Your task to perform on an android device: open the mobile data screen to see how much data has been used Image 0: 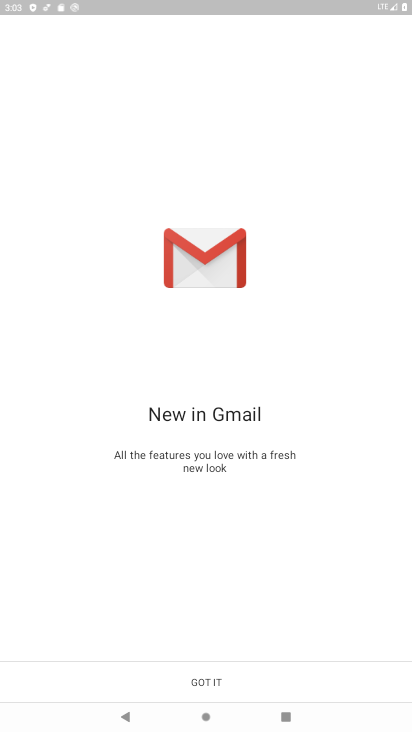
Step 0: press home button
Your task to perform on an android device: open the mobile data screen to see how much data has been used Image 1: 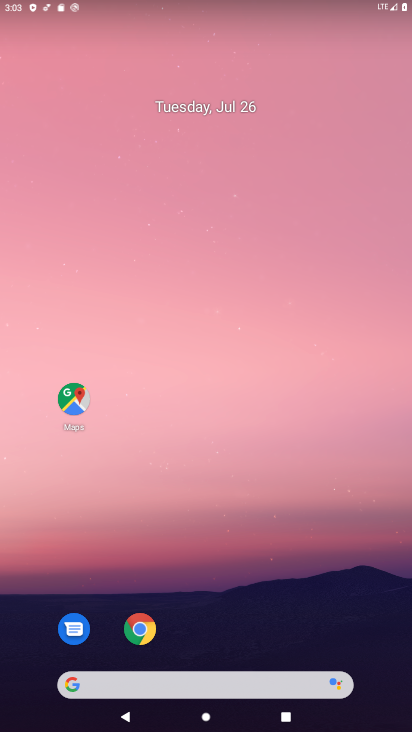
Step 1: drag from (224, 696) to (263, 147)
Your task to perform on an android device: open the mobile data screen to see how much data has been used Image 2: 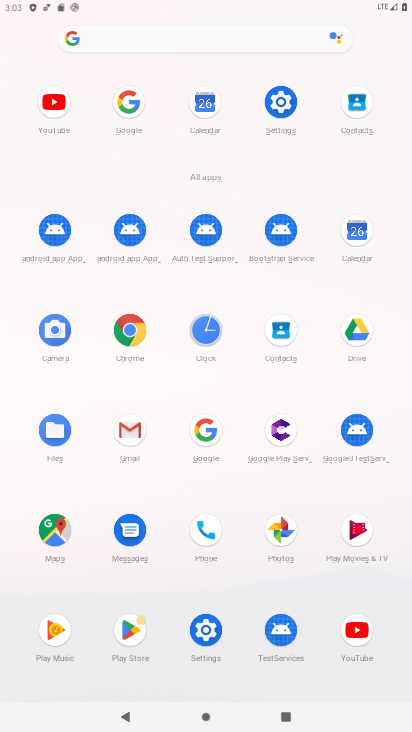
Step 2: click (283, 99)
Your task to perform on an android device: open the mobile data screen to see how much data has been used Image 3: 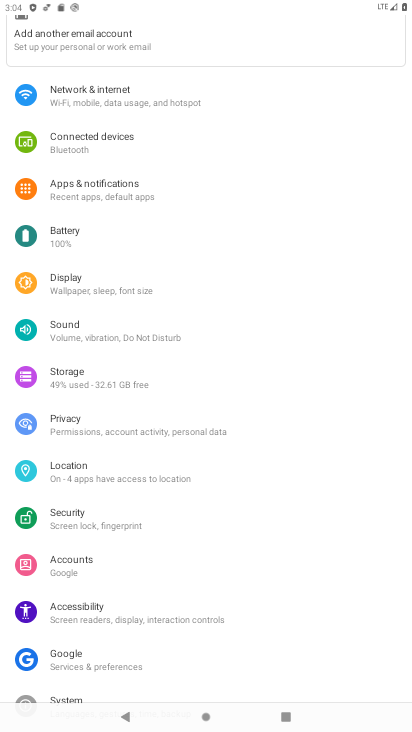
Step 3: click (127, 97)
Your task to perform on an android device: open the mobile data screen to see how much data has been used Image 4: 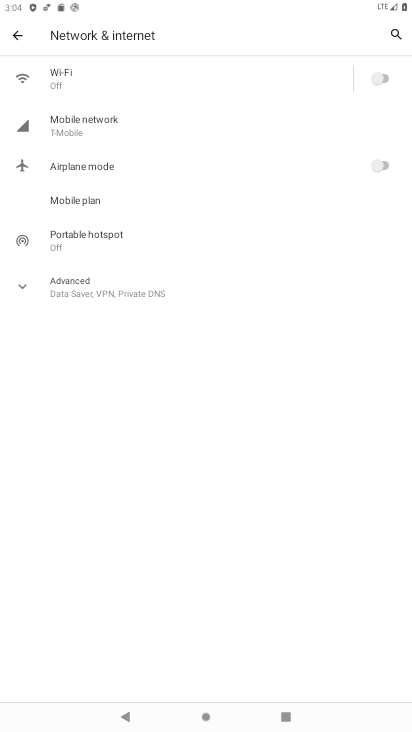
Step 4: click (69, 122)
Your task to perform on an android device: open the mobile data screen to see how much data has been used Image 5: 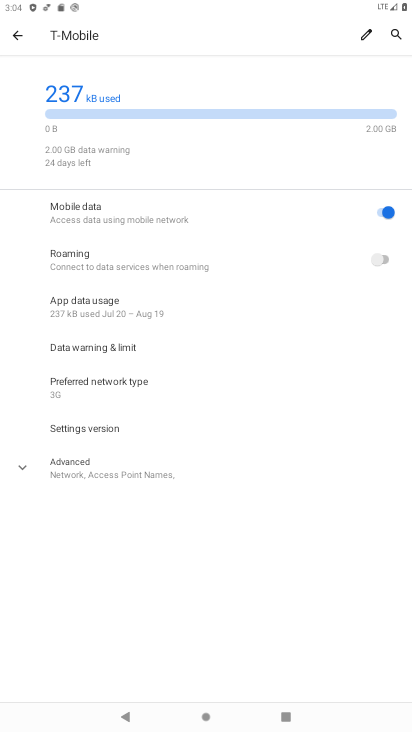
Step 5: click (90, 303)
Your task to perform on an android device: open the mobile data screen to see how much data has been used Image 6: 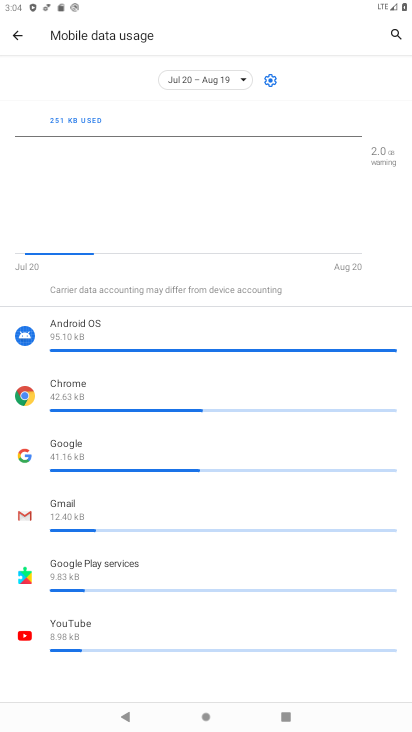
Step 6: task complete